Your task to perform on an android device: Go to Reddit.com Image 0: 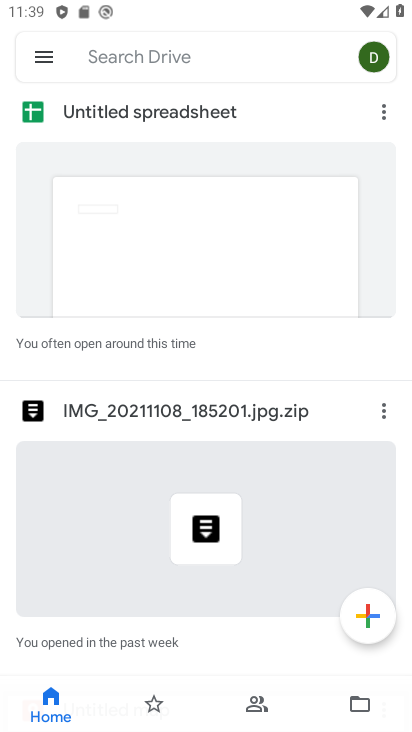
Step 0: press home button
Your task to perform on an android device: Go to Reddit.com Image 1: 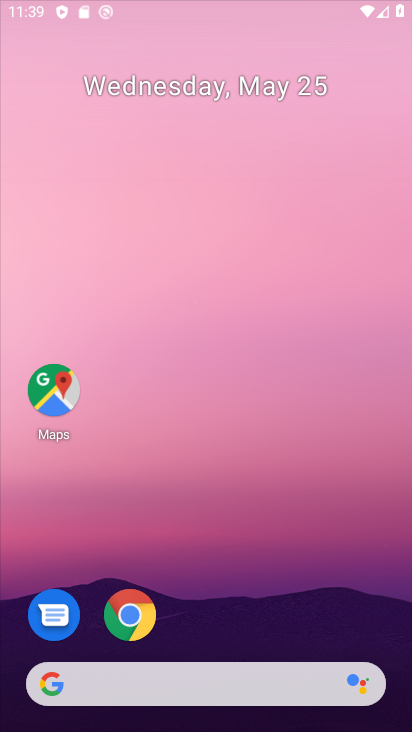
Step 1: drag from (305, 596) to (230, 66)
Your task to perform on an android device: Go to Reddit.com Image 2: 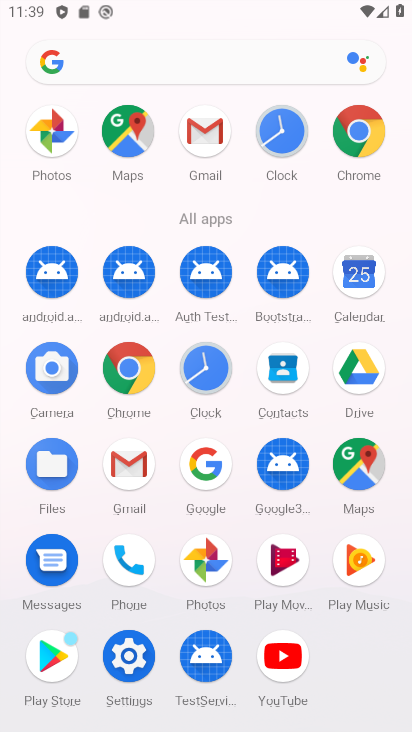
Step 2: click (205, 464)
Your task to perform on an android device: Go to Reddit.com Image 3: 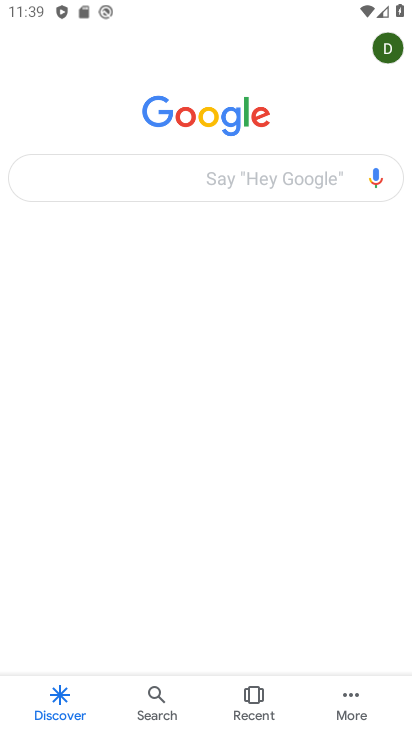
Step 3: click (202, 195)
Your task to perform on an android device: Go to Reddit.com Image 4: 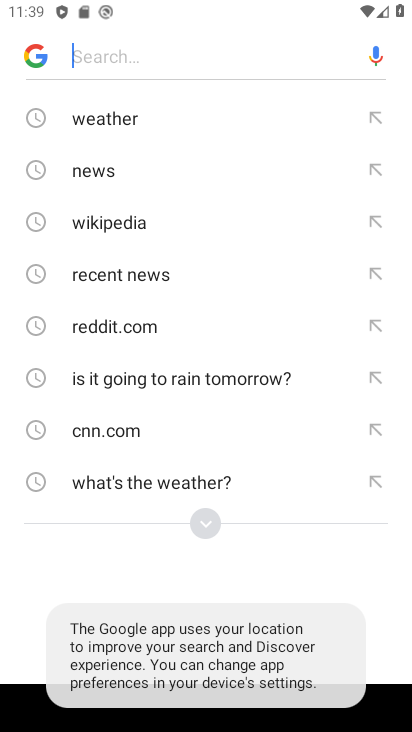
Step 4: click (128, 326)
Your task to perform on an android device: Go to Reddit.com Image 5: 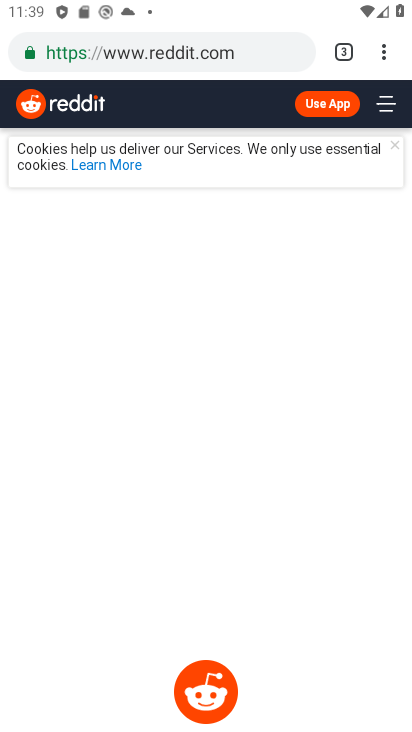
Step 5: task complete